Your task to perform on an android device: turn on airplane mode Image 0: 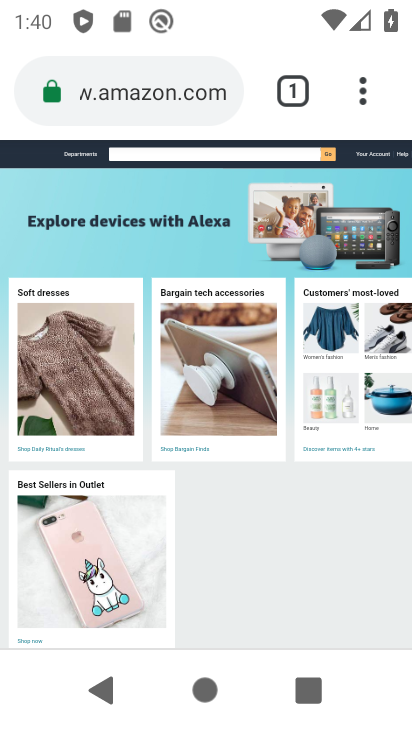
Step 0: press home button
Your task to perform on an android device: turn on airplane mode Image 1: 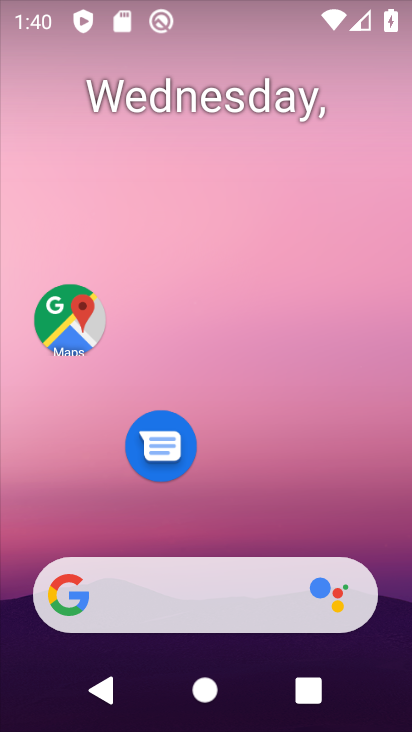
Step 1: drag from (309, 476) to (219, 167)
Your task to perform on an android device: turn on airplane mode Image 2: 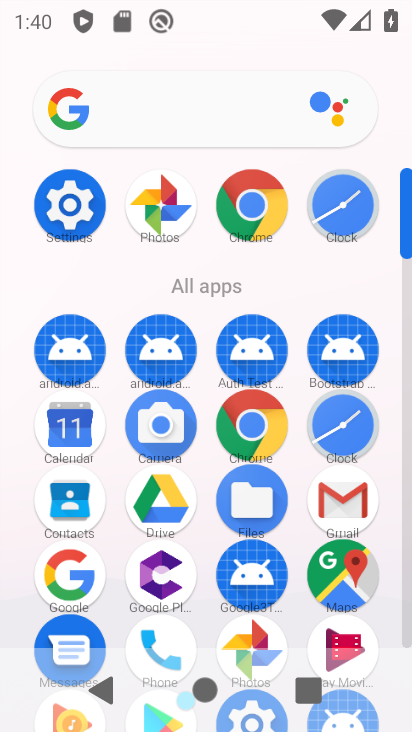
Step 2: click (77, 214)
Your task to perform on an android device: turn on airplane mode Image 3: 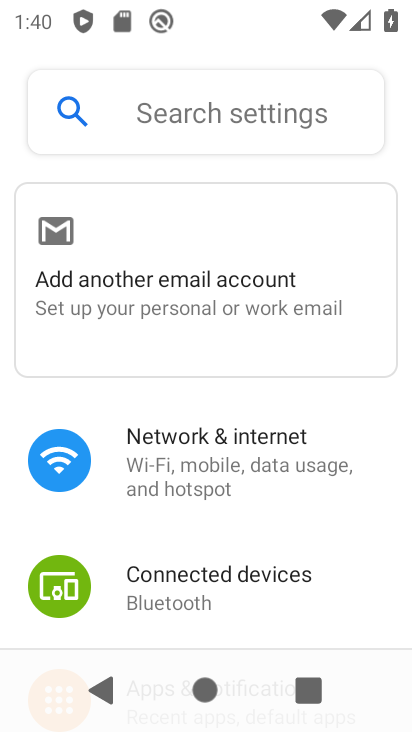
Step 3: click (200, 417)
Your task to perform on an android device: turn on airplane mode Image 4: 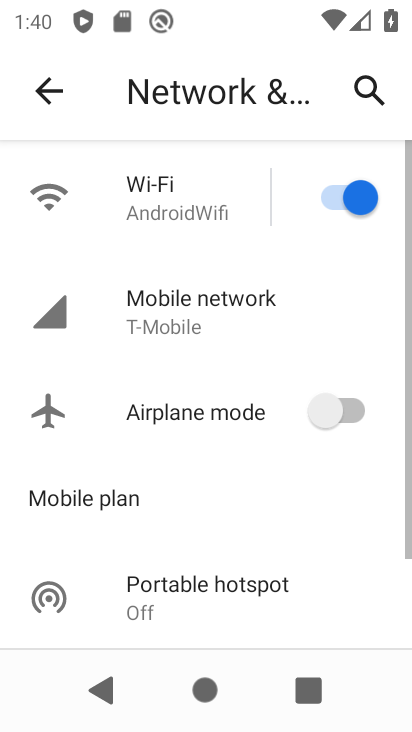
Step 4: click (341, 190)
Your task to perform on an android device: turn on airplane mode Image 5: 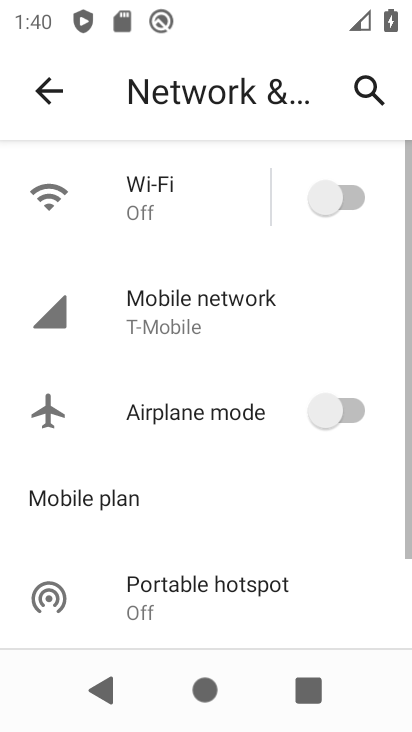
Step 5: click (341, 190)
Your task to perform on an android device: turn on airplane mode Image 6: 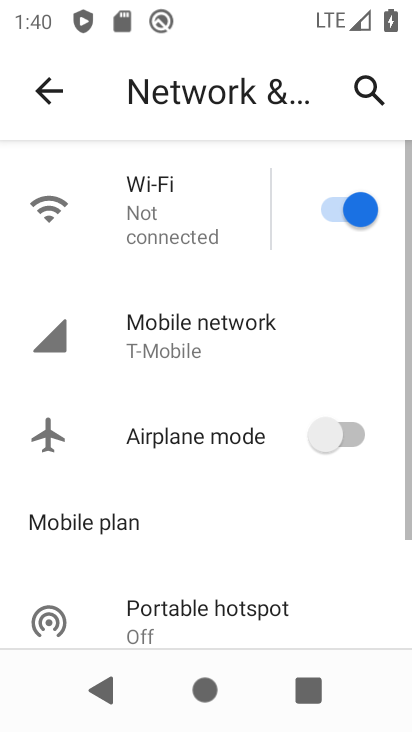
Step 6: click (345, 405)
Your task to perform on an android device: turn on airplane mode Image 7: 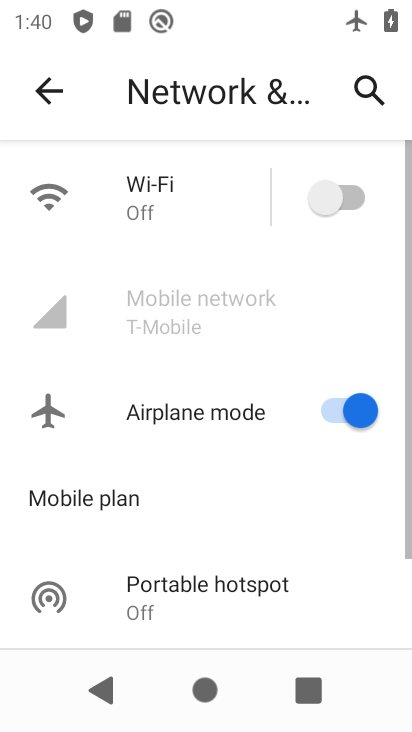
Step 7: click (337, 199)
Your task to perform on an android device: turn on airplane mode Image 8: 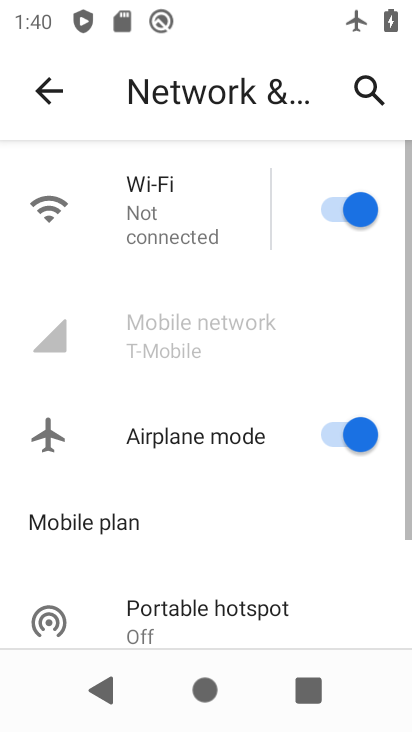
Step 8: task complete